Your task to perform on an android device: change the clock display to analog Image 0: 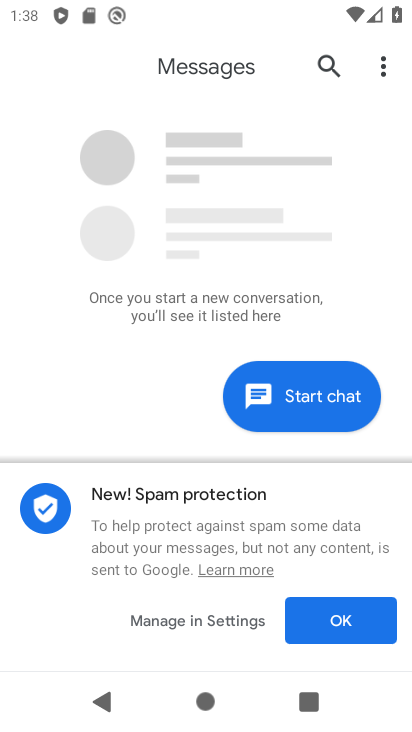
Step 0: press home button
Your task to perform on an android device: change the clock display to analog Image 1: 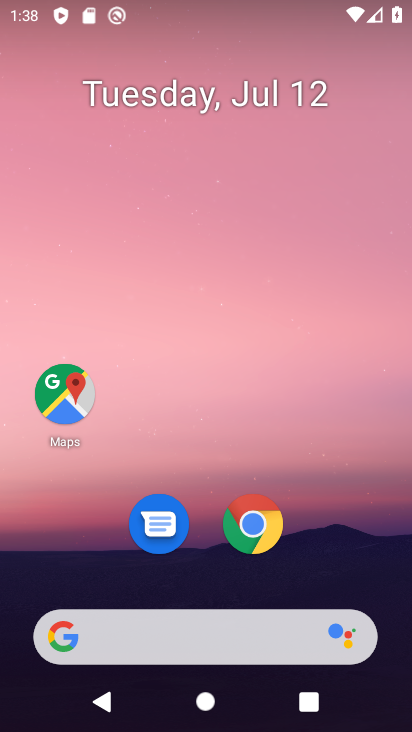
Step 1: drag from (225, 461) to (288, 0)
Your task to perform on an android device: change the clock display to analog Image 2: 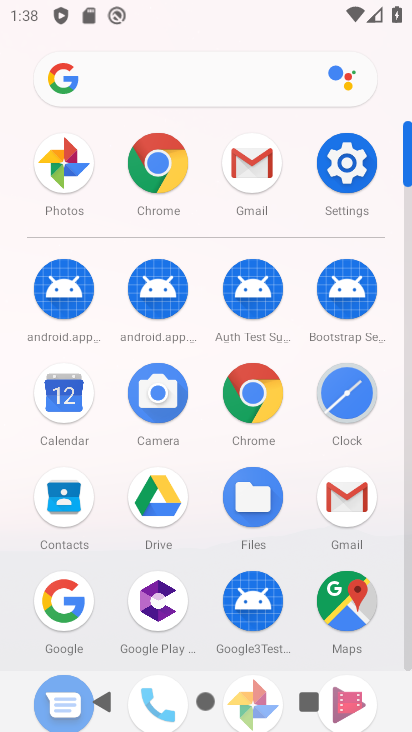
Step 2: click (344, 386)
Your task to perform on an android device: change the clock display to analog Image 3: 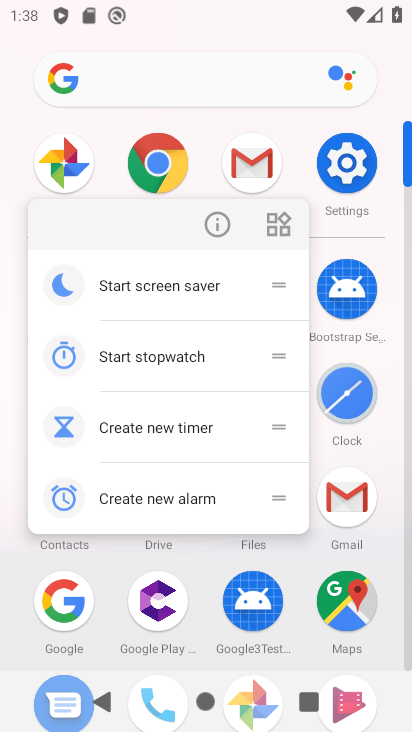
Step 3: click (344, 384)
Your task to perform on an android device: change the clock display to analog Image 4: 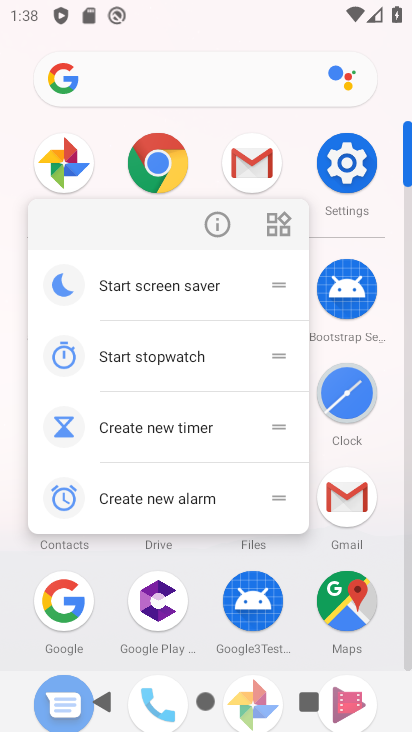
Step 4: click (367, 414)
Your task to perform on an android device: change the clock display to analog Image 5: 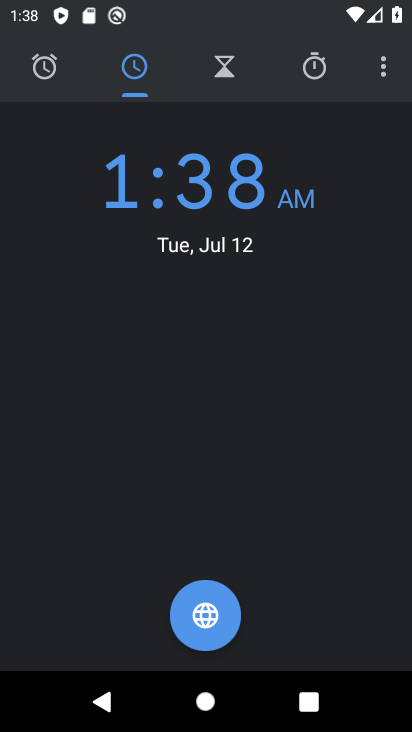
Step 5: click (387, 69)
Your task to perform on an android device: change the clock display to analog Image 6: 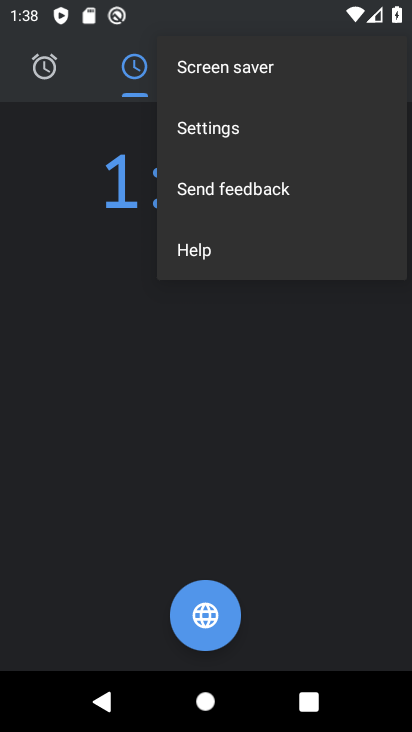
Step 6: click (264, 133)
Your task to perform on an android device: change the clock display to analog Image 7: 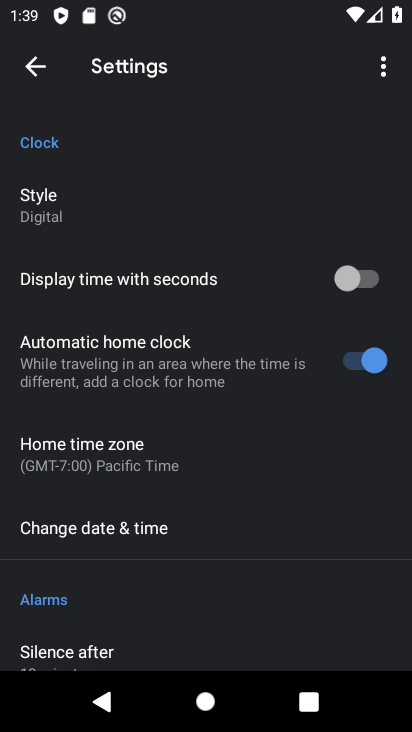
Step 7: click (56, 203)
Your task to perform on an android device: change the clock display to analog Image 8: 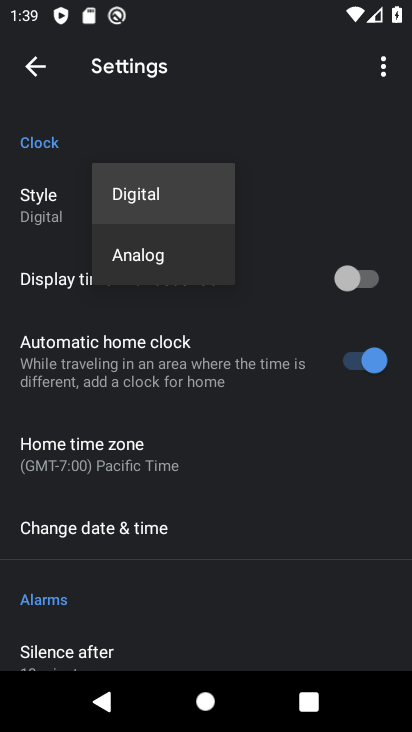
Step 8: click (130, 251)
Your task to perform on an android device: change the clock display to analog Image 9: 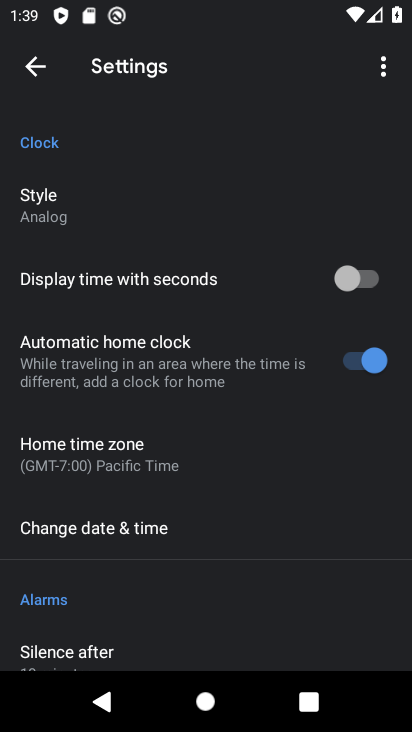
Step 9: click (45, 65)
Your task to perform on an android device: change the clock display to analog Image 10: 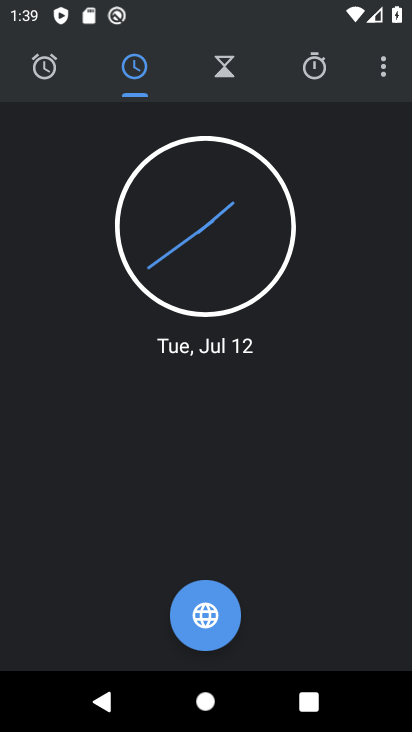
Step 10: task complete